Your task to perform on an android device: toggle improve location accuracy Image 0: 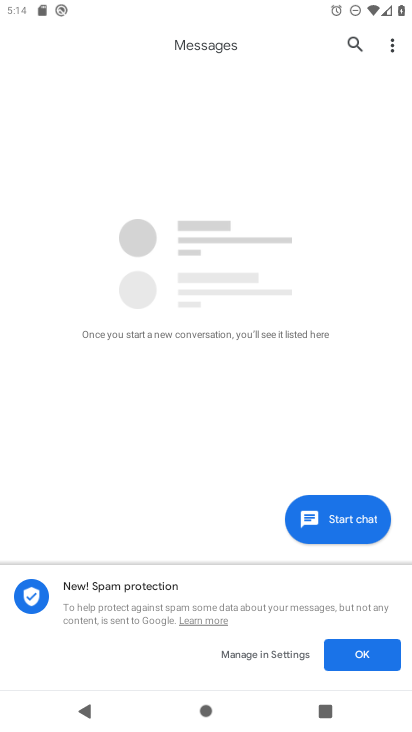
Step 0: press home button
Your task to perform on an android device: toggle improve location accuracy Image 1: 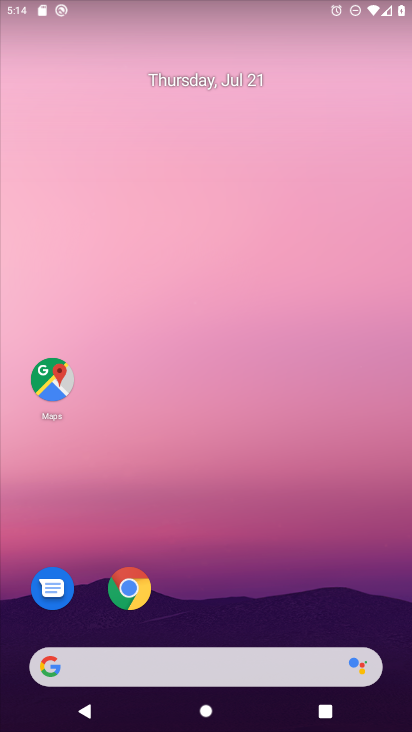
Step 1: drag from (377, 594) to (267, 201)
Your task to perform on an android device: toggle improve location accuracy Image 2: 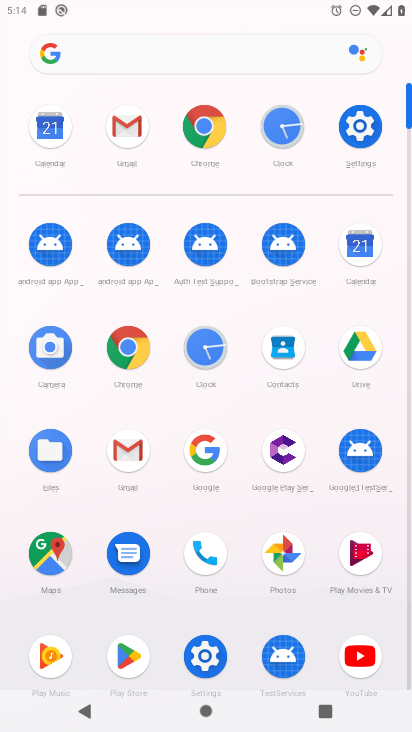
Step 2: click (356, 135)
Your task to perform on an android device: toggle improve location accuracy Image 3: 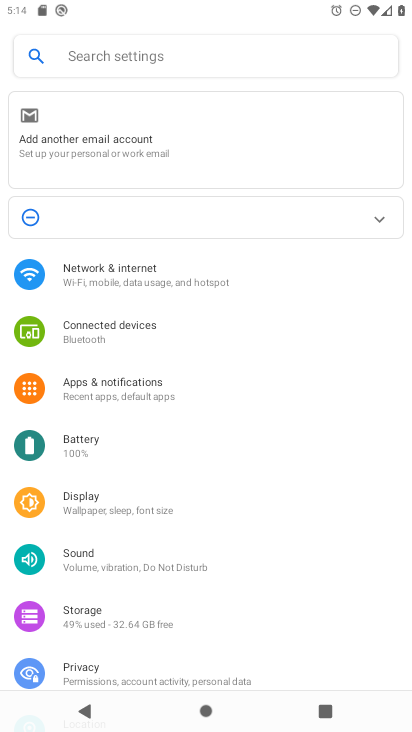
Step 3: drag from (140, 650) to (127, 362)
Your task to perform on an android device: toggle improve location accuracy Image 4: 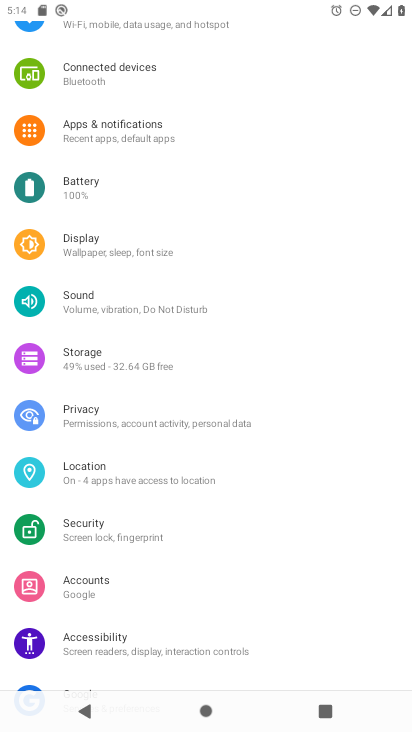
Step 4: click (167, 484)
Your task to perform on an android device: toggle improve location accuracy Image 5: 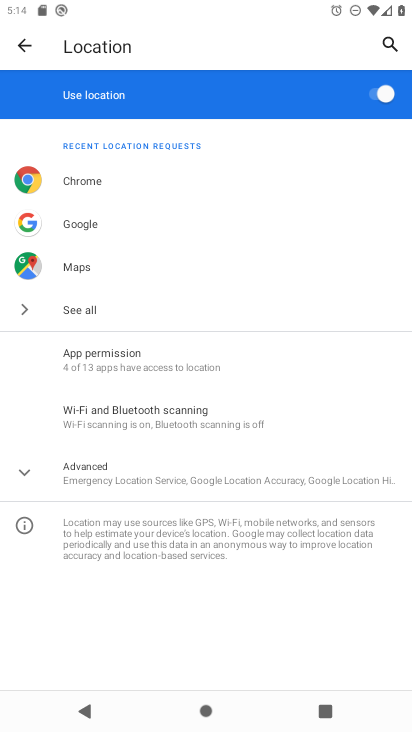
Step 5: click (192, 470)
Your task to perform on an android device: toggle improve location accuracy Image 6: 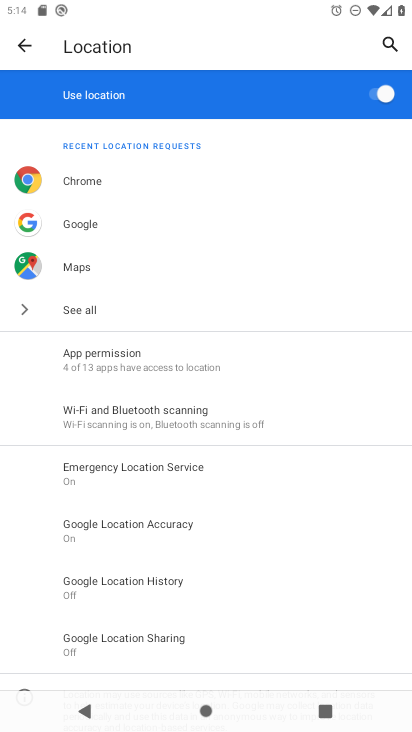
Step 6: click (194, 527)
Your task to perform on an android device: toggle improve location accuracy Image 7: 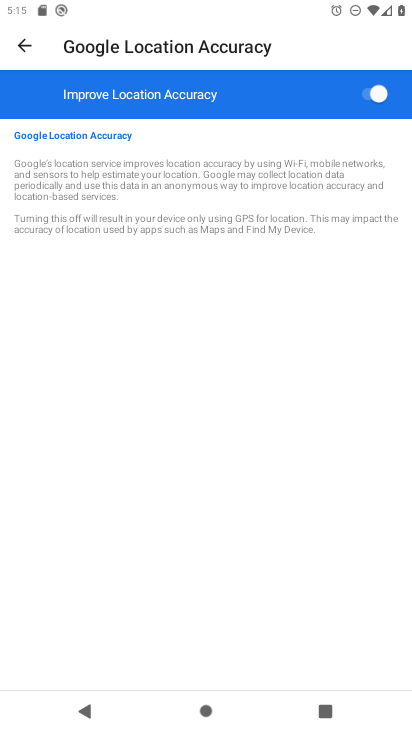
Step 7: click (388, 99)
Your task to perform on an android device: toggle improve location accuracy Image 8: 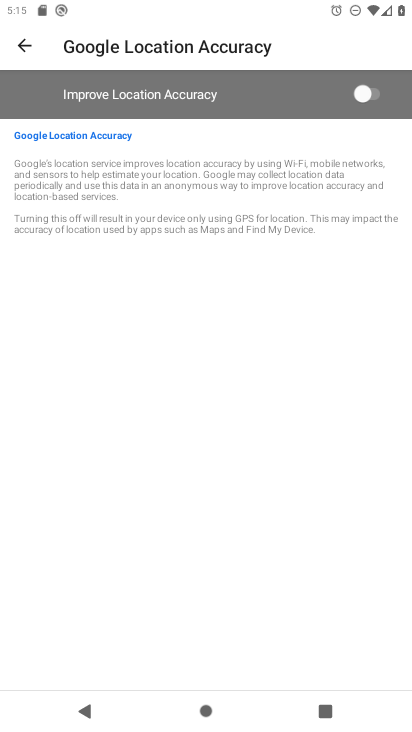
Step 8: task complete